Your task to perform on an android device: change timer sound Image 0: 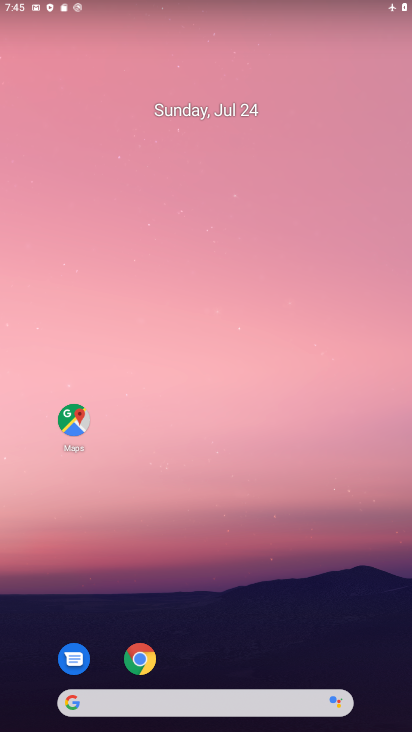
Step 0: click (211, 684)
Your task to perform on an android device: change timer sound Image 1: 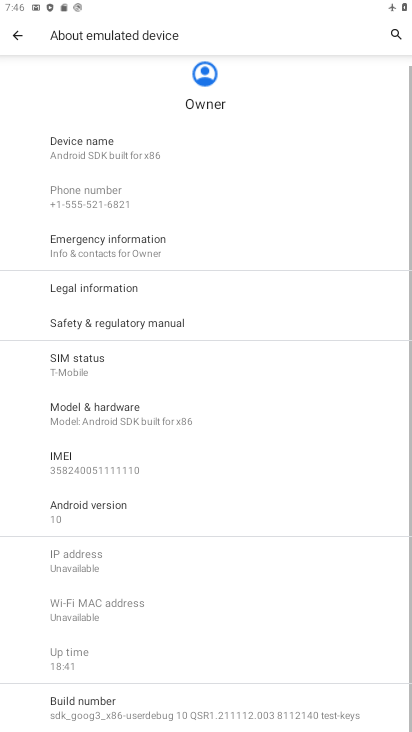
Step 1: click (3, 43)
Your task to perform on an android device: change timer sound Image 2: 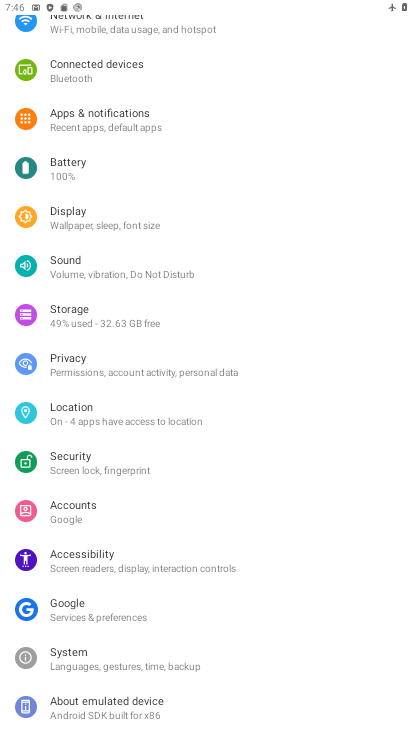
Step 2: press back button
Your task to perform on an android device: change timer sound Image 3: 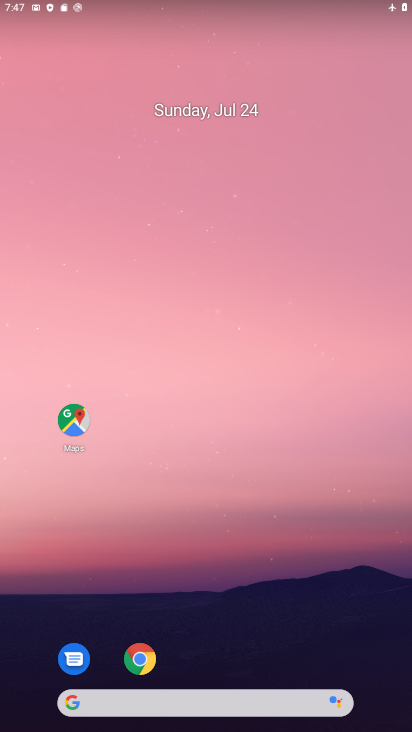
Step 3: drag from (255, 301) to (199, 80)
Your task to perform on an android device: change timer sound Image 4: 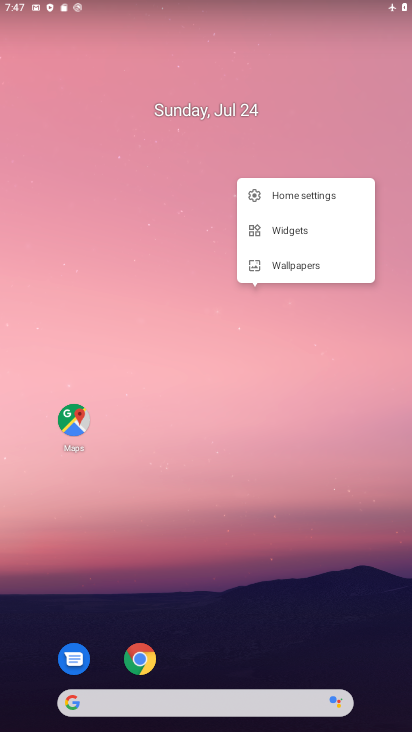
Step 4: click (181, 225)
Your task to perform on an android device: change timer sound Image 5: 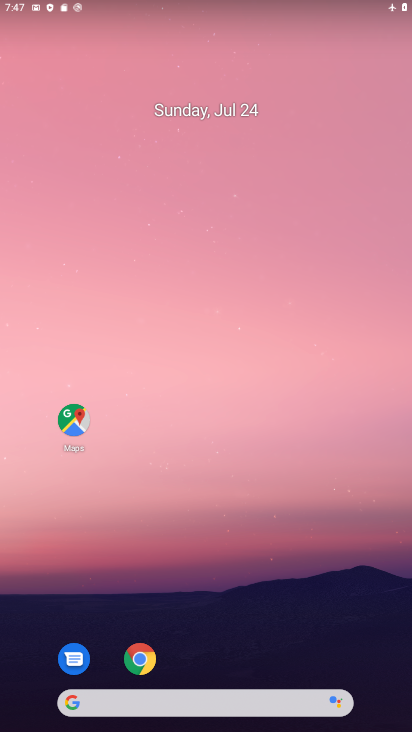
Step 5: click (198, 16)
Your task to perform on an android device: change timer sound Image 6: 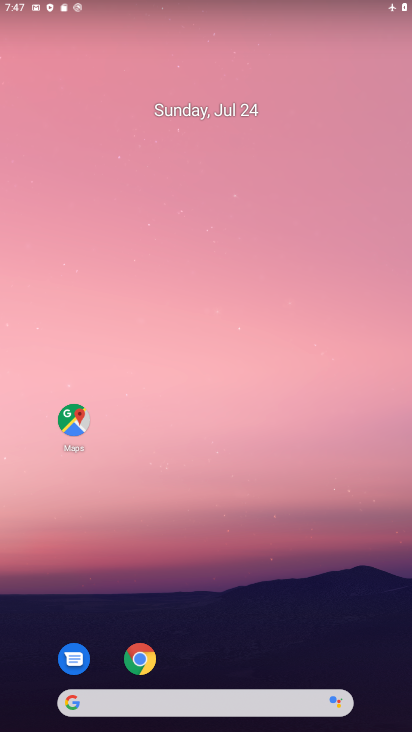
Step 6: click (204, 101)
Your task to perform on an android device: change timer sound Image 7: 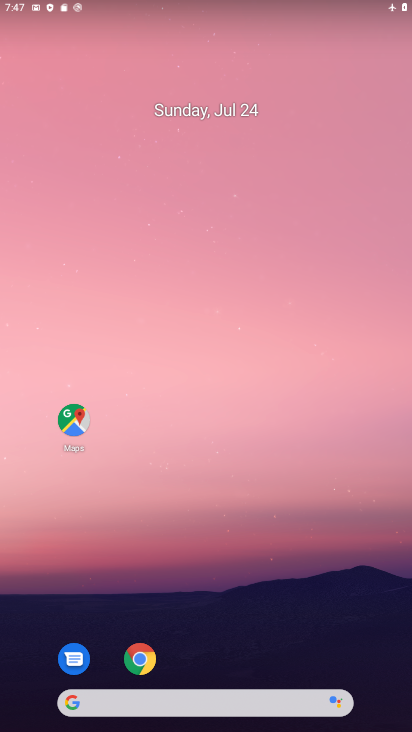
Step 7: drag from (247, 524) to (214, 25)
Your task to perform on an android device: change timer sound Image 8: 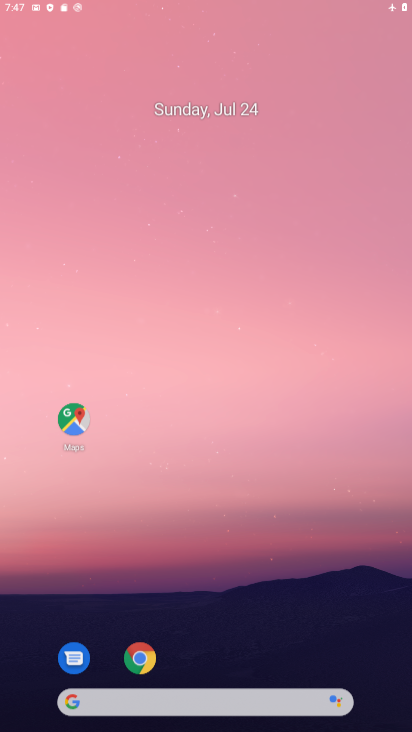
Step 8: drag from (202, 355) to (223, 147)
Your task to perform on an android device: change timer sound Image 9: 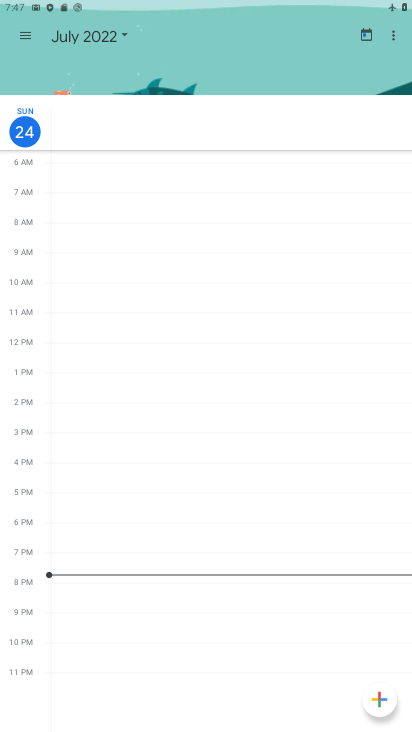
Step 9: press back button
Your task to perform on an android device: change timer sound Image 10: 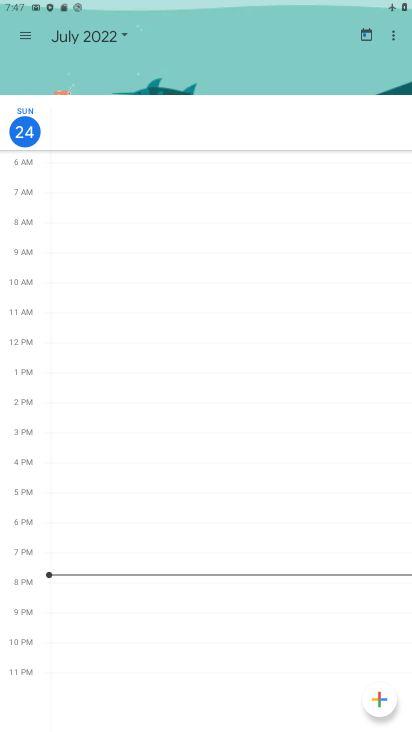
Step 10: press back button
Your task to perform on an android device: change timer sound Image 11: 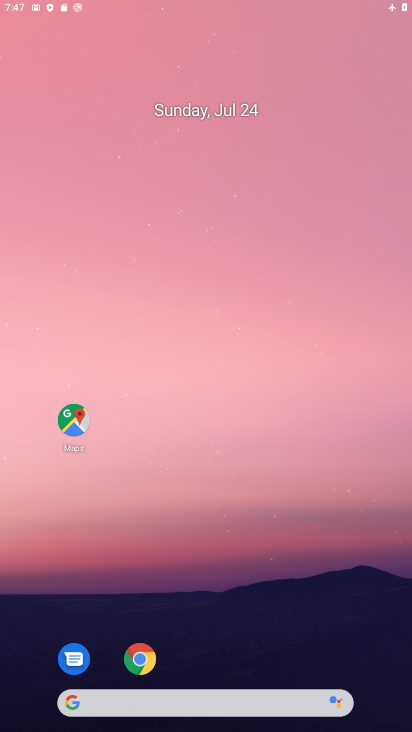
Step 11: press back button
Your task to perform on an android device: change timer sound Image 12: 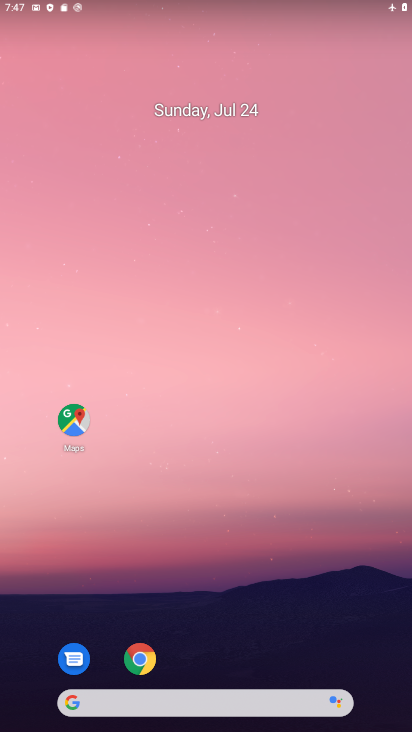
Step 12: drag from (297, 610) to (236, 205)
Your task to perform on an android device: change timer sound Image 13: 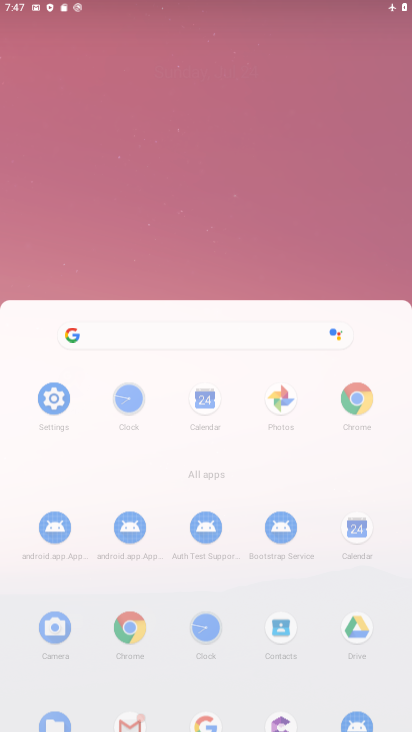
Step 13: drag from (247, 590) to (245, 124)
Your task to perform on an android device: change timer sound Image 14: 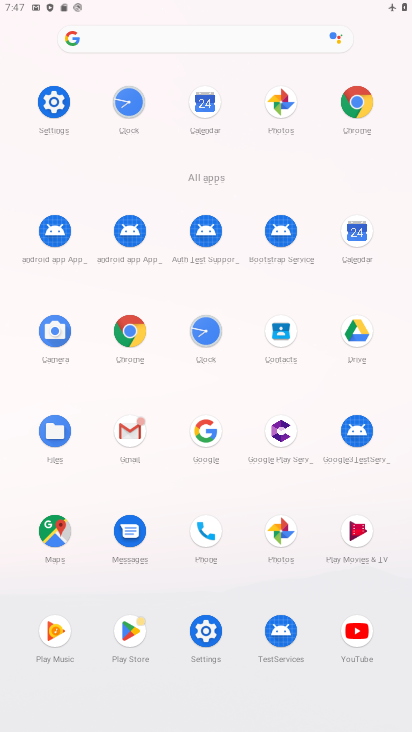
Step 14: drag from (234, 469) to (271, 147)
Your task to perform on an android device: change timer sound Image 15: 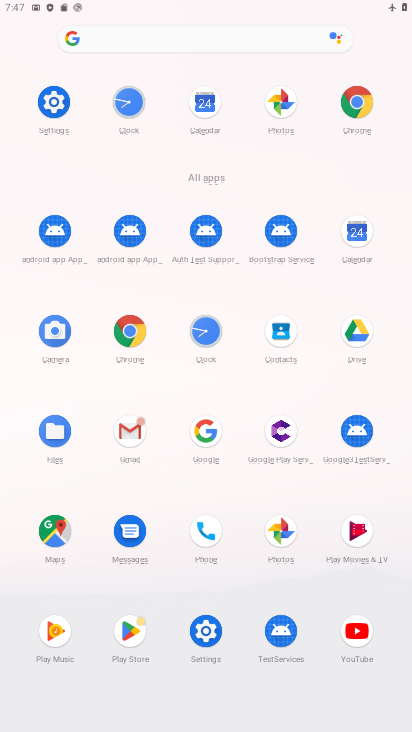
Step 15: click (201, 331)
Your task to perform on an android device: change timer sound Image 16: 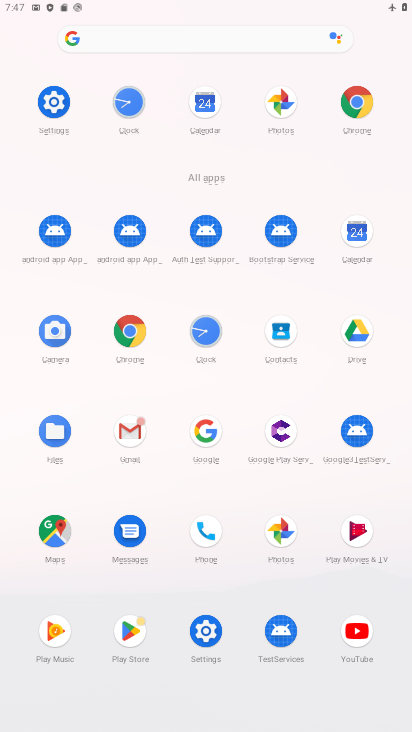
Step 16: click (207, 334)
Your task to perform on an android device: change timer sound Image 17: 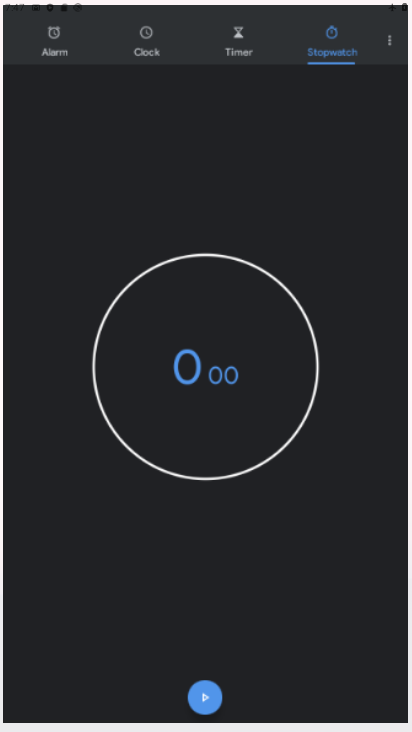
Step 17: click (206, 335)
Your task to perform on an android device: change timer sound Image 18: 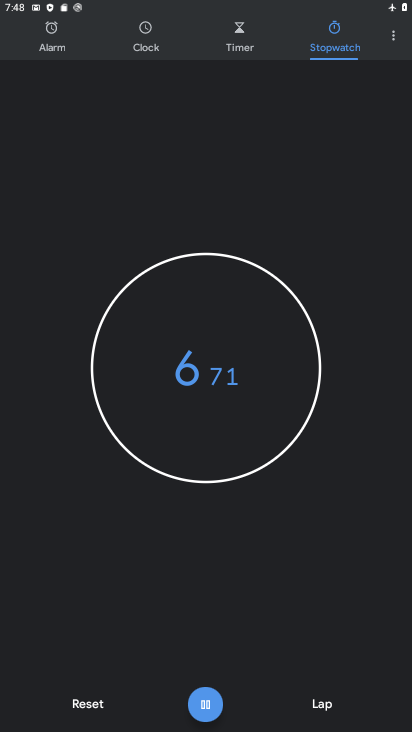
Step 18: click (201, 704)
Your task to perform on an android device: change timer sound Image 19: 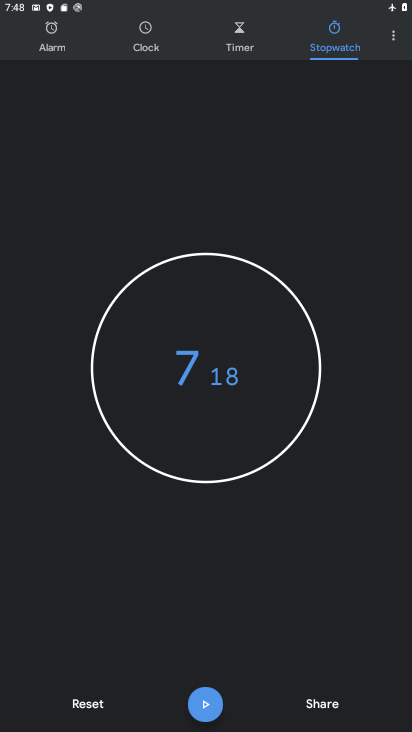
Step 19: click (206, 706)
Your task to perform on an android device: change timer sound Image 20: 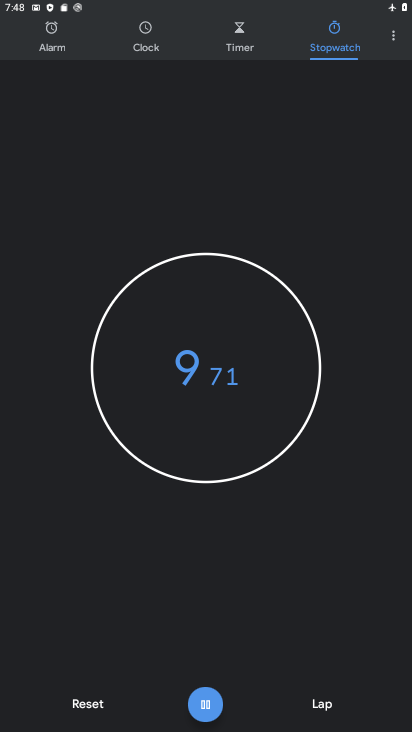
Step 20: click (205, 707)
Your task to perform on an android device: change timer sound Image 21: 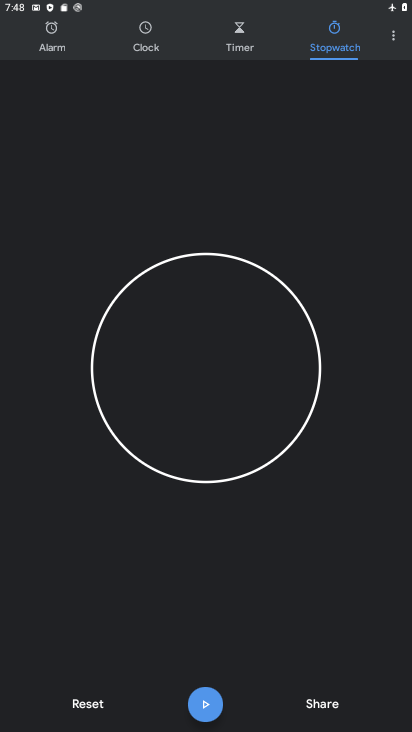
Step 21: click (396, 28)
Your task to perform on an android device: change timer sound Image 22: 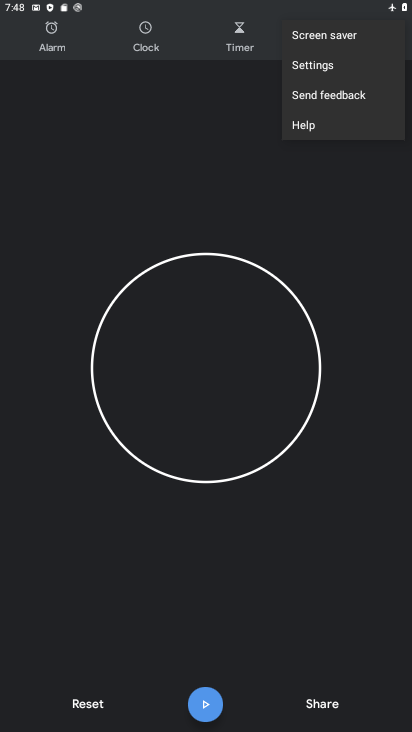
Step 22: click (324, 69)
Your task to perform on an android device: change timer sound Image 23: 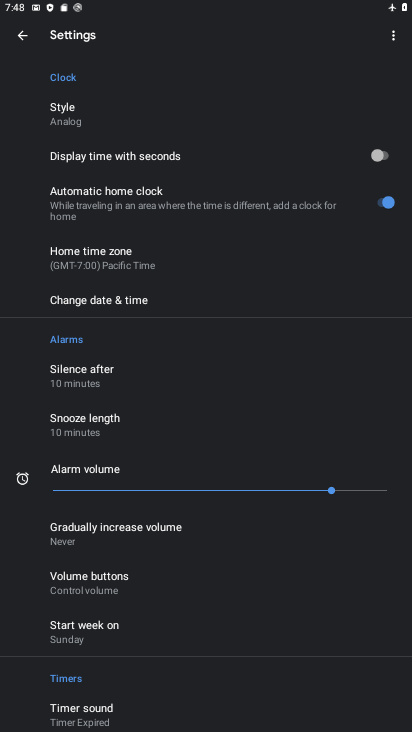
Step 23: click (115, 307)
Your task to perform on an android device: change timer sound Image 24: 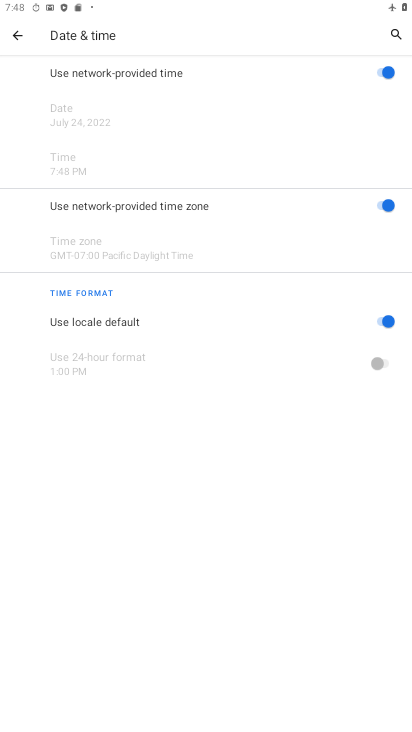
Step 24: click (12, 33)
Your task to perform on an android device: change timer sound Image 25: 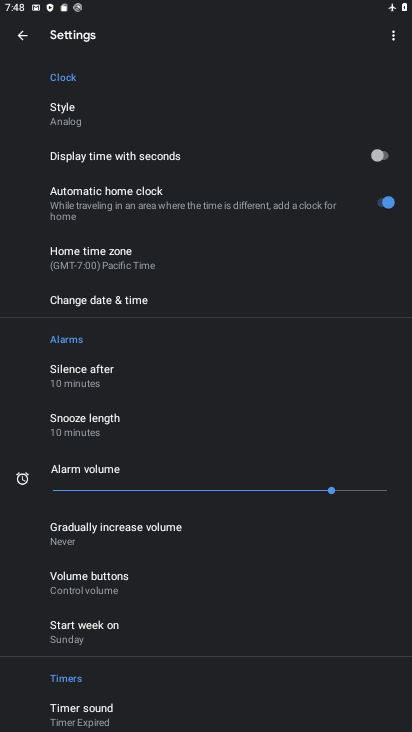
Step 25: click (91, 711)
Your task to perform on an android device: change timer sound Image 26: 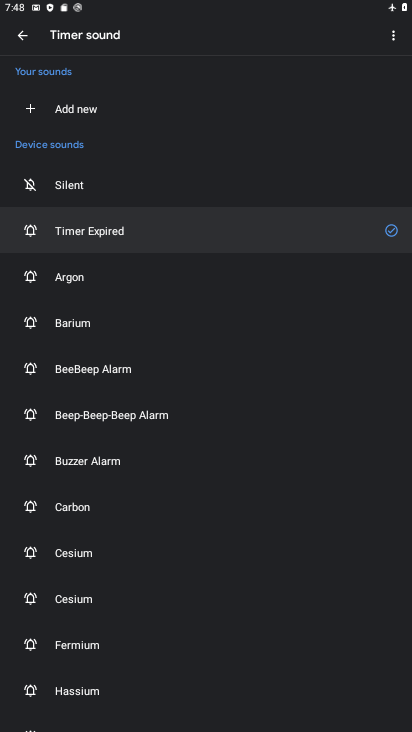
Step 26: click (56, 409)
Your task to perform on an android device: change timer sound Image 27: 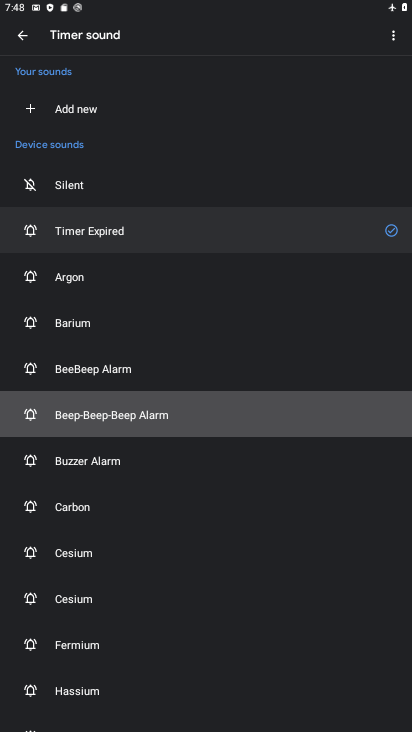
Step 27: click (61, 415)
Your task to perform on an android device: change timer sound Image 28: 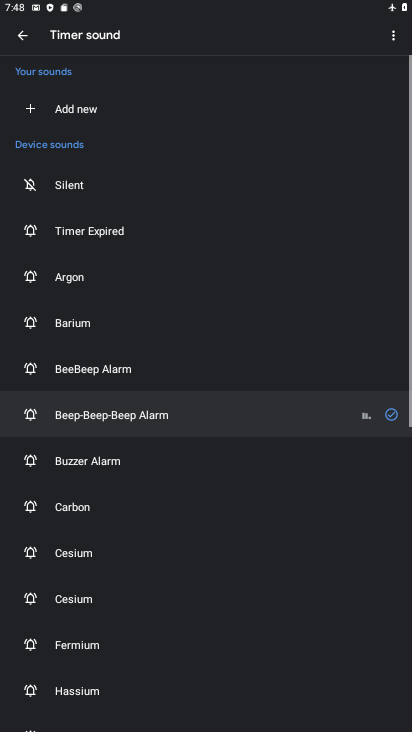
Step 28: click (65, 418)
Your task to perform on an android device: change timer sound Image 29: 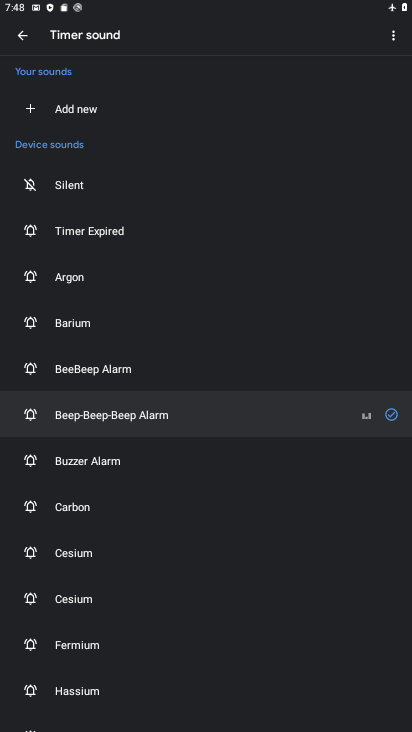
Step 29: task complete